Your task to perform on an android device: Add macbook pro 13 inch to the cart on newegg.com Image 0: 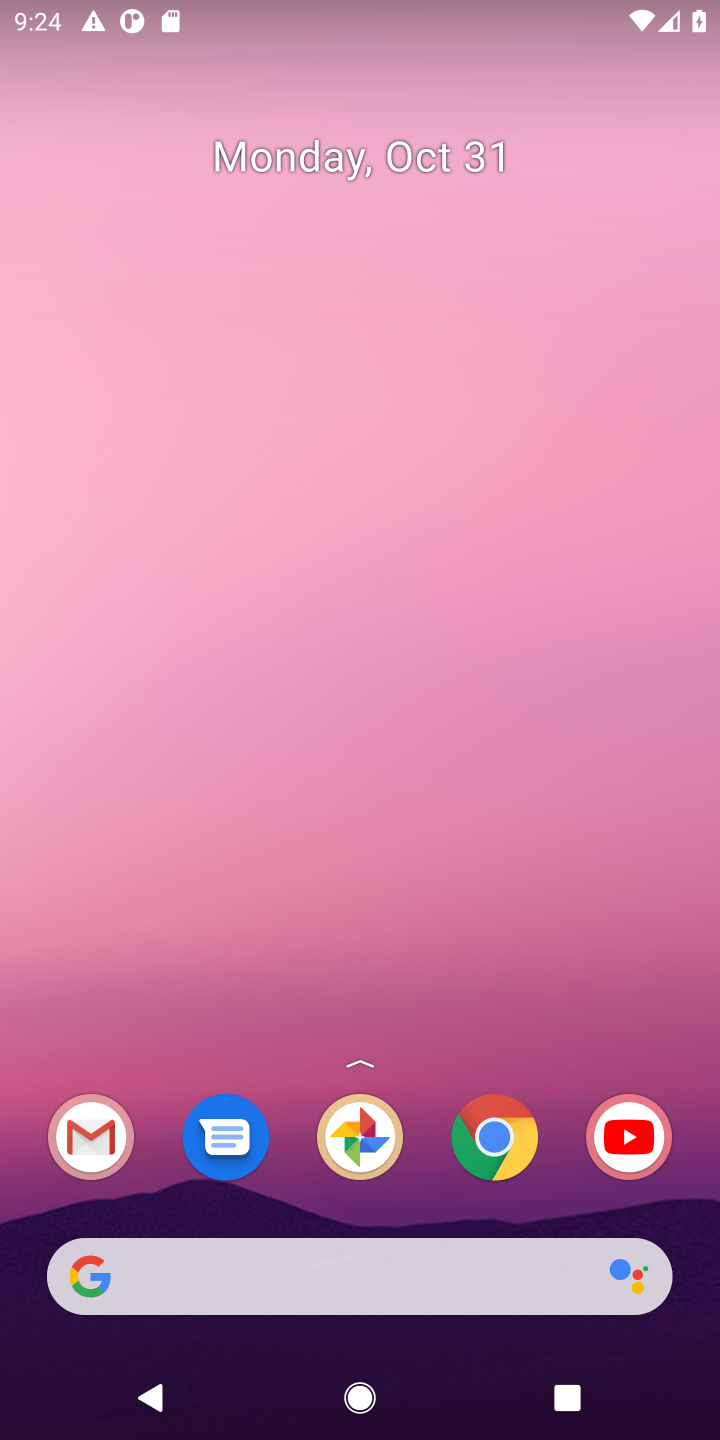
Step 0: click (511, 1165)
Your task to perform on an android device: Add macbook pro 13 inch to the cart on newegg.com Image 1: 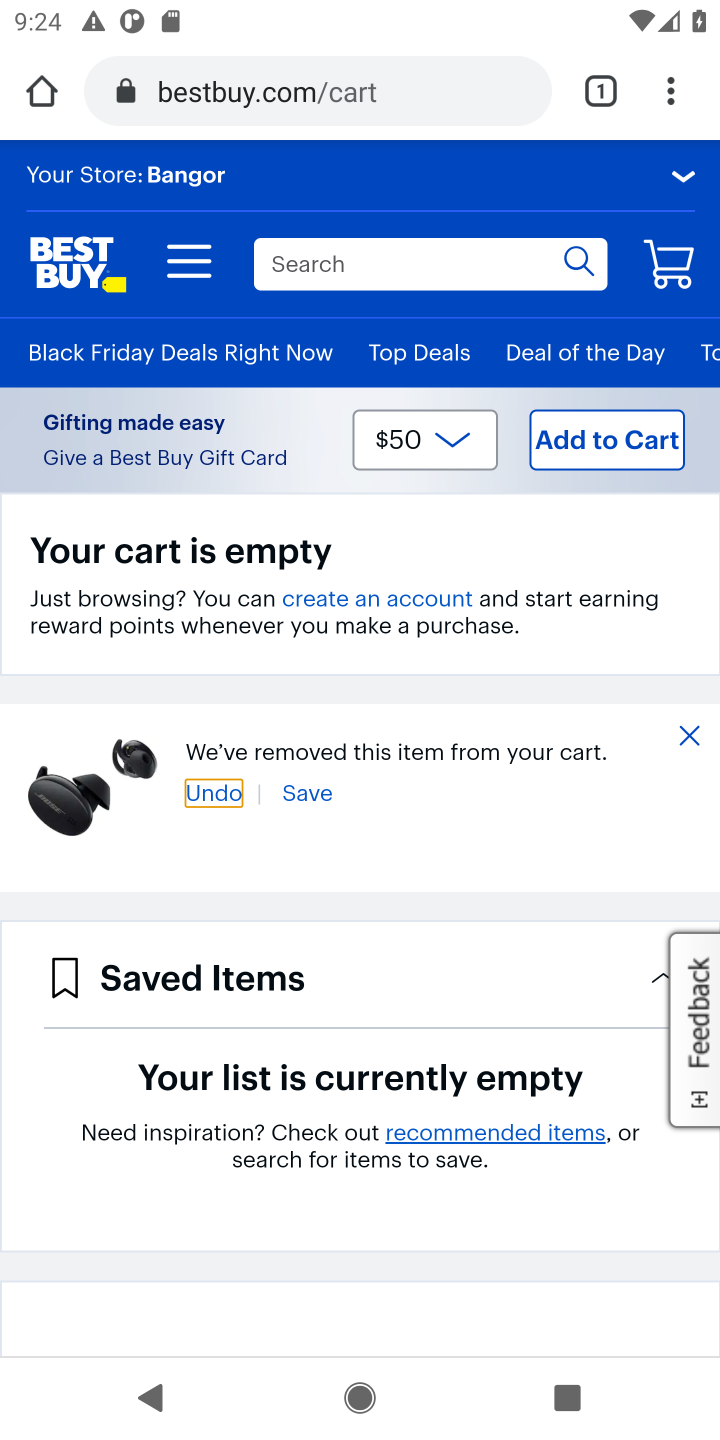
Step 1: click (282, 97)
Your task to perform on an android device: Add macbook pro 13 inch to the cart on newegg.com Image 2: 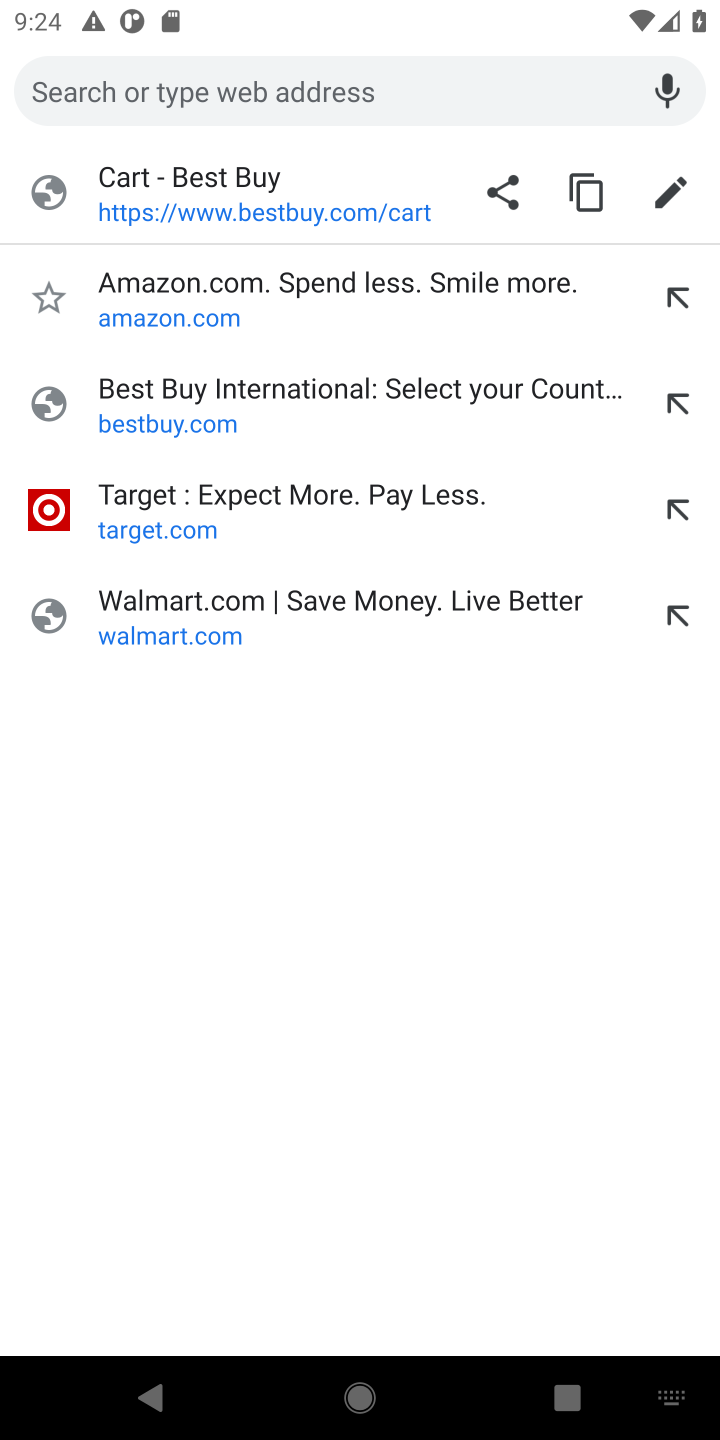
Step 2: type "newegg.com"
Your task to perform on an android device: Add macbook pro 13 inch to the cart on newegg.com Image 3: 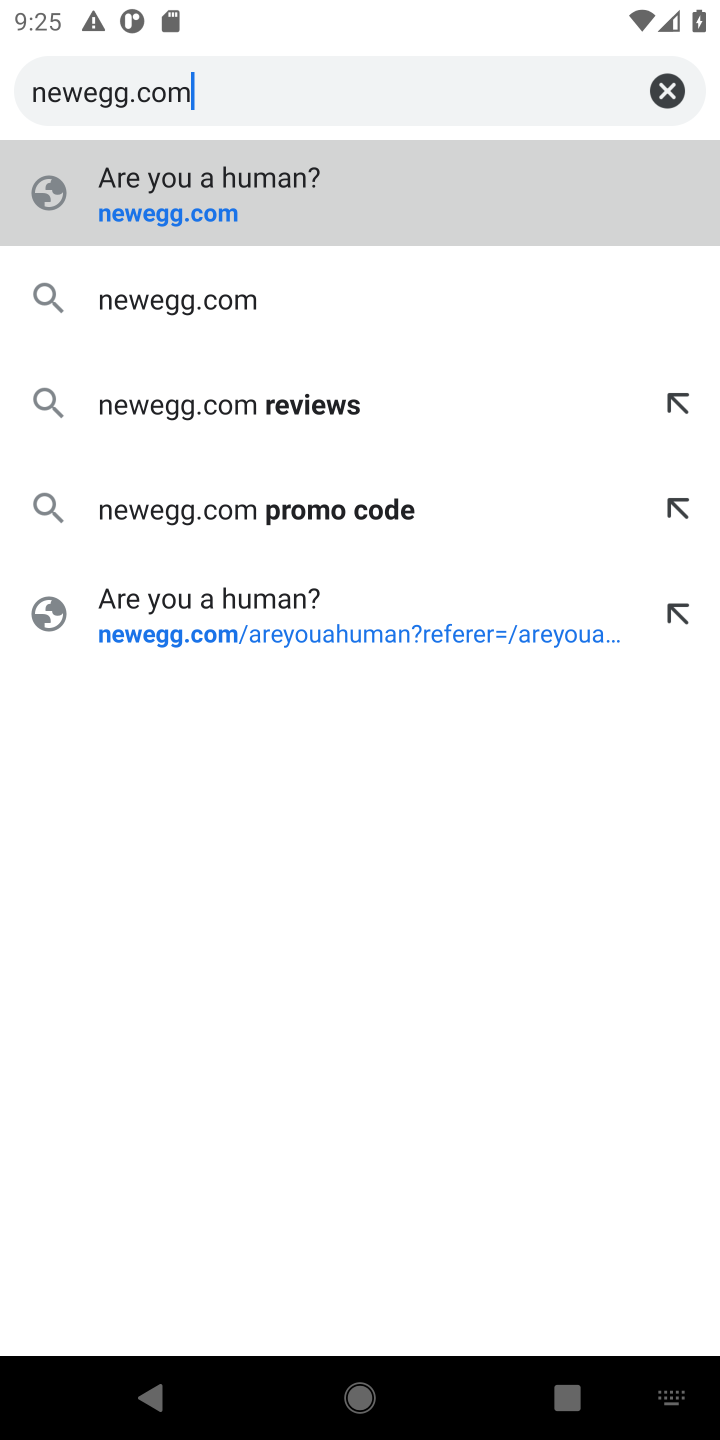
Step 3: click (132, 301)
Your task to perform on an android device: Add macbook pro 13 inch to the cart on newegg.com Image 4: 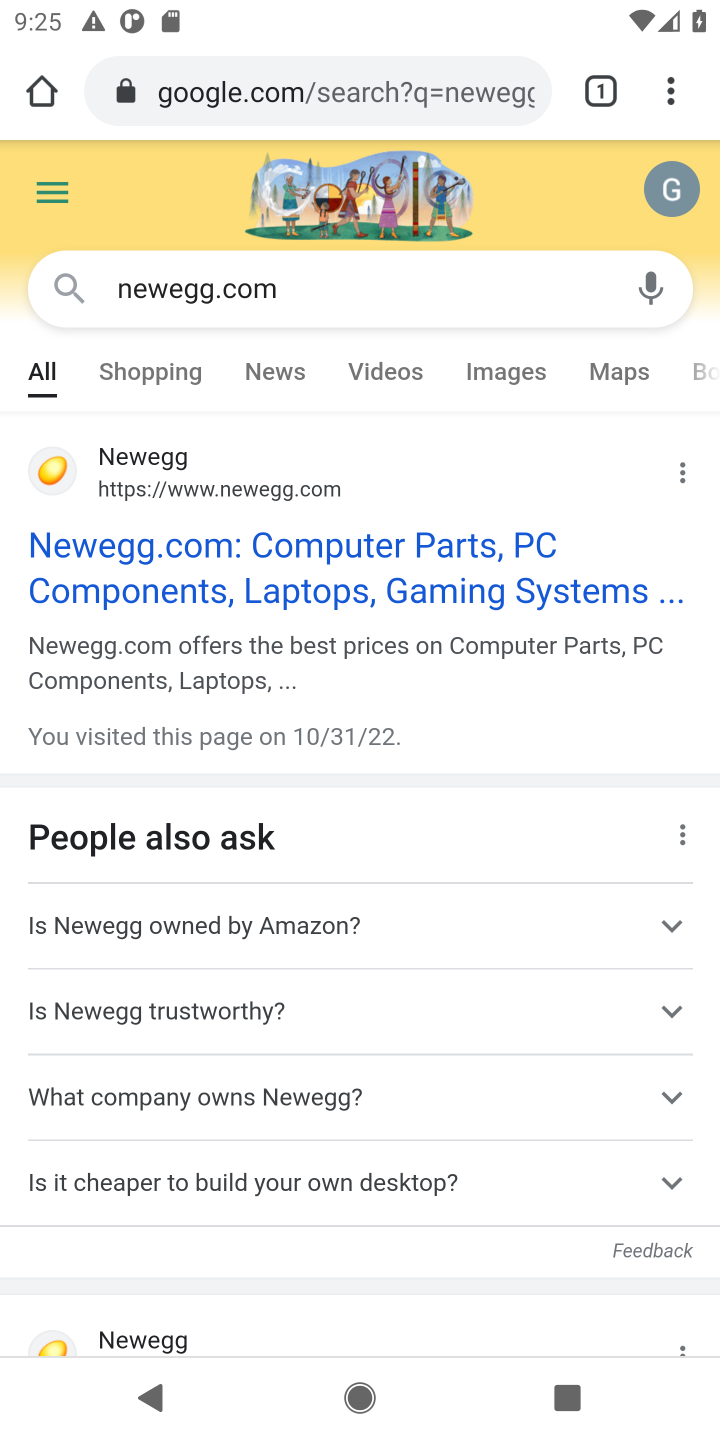
Step 4: click (147, 504)
Your task to perform on an android device: Add macbook pro 13 inch to the cart on newegg.com Image 5: 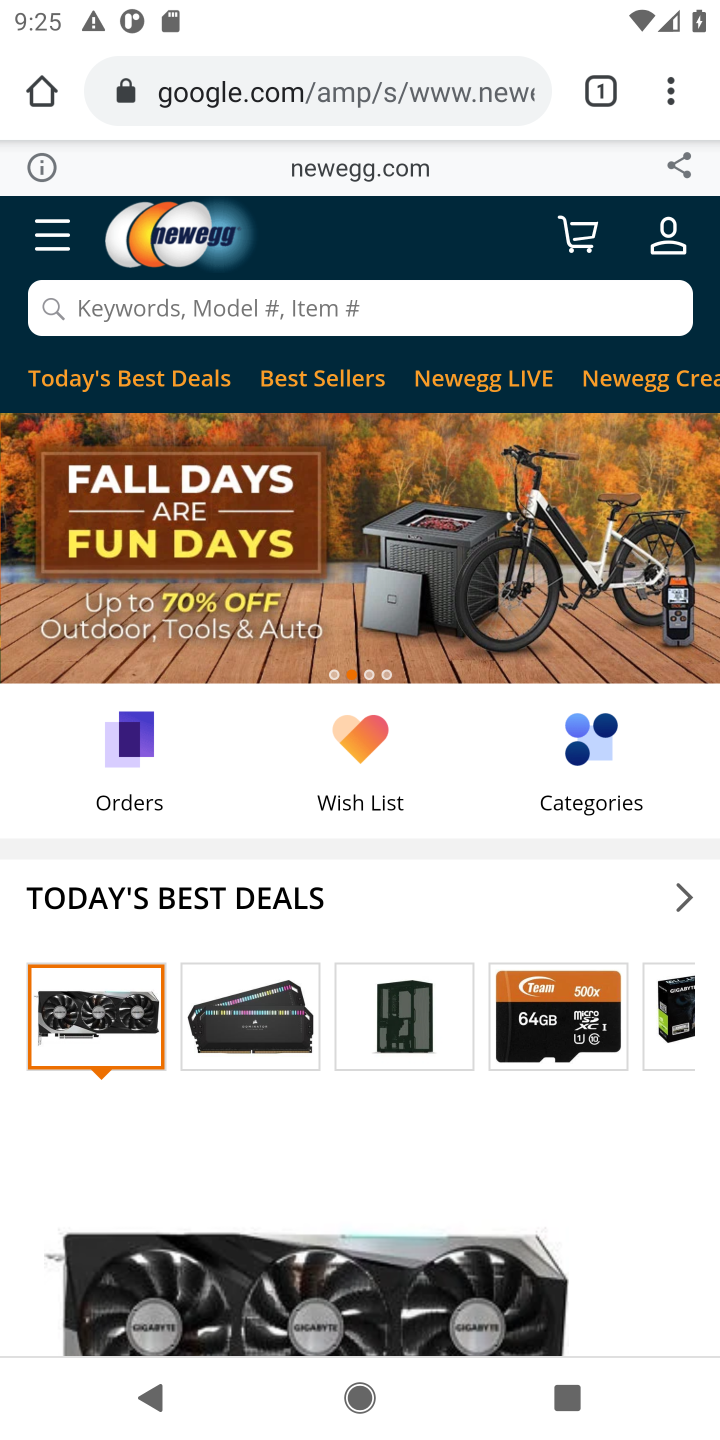
Step 5: click (238, 302)
Your task to perform on an android device: Add macbook pro 13 inch to the cart on newegg.com Image 6: 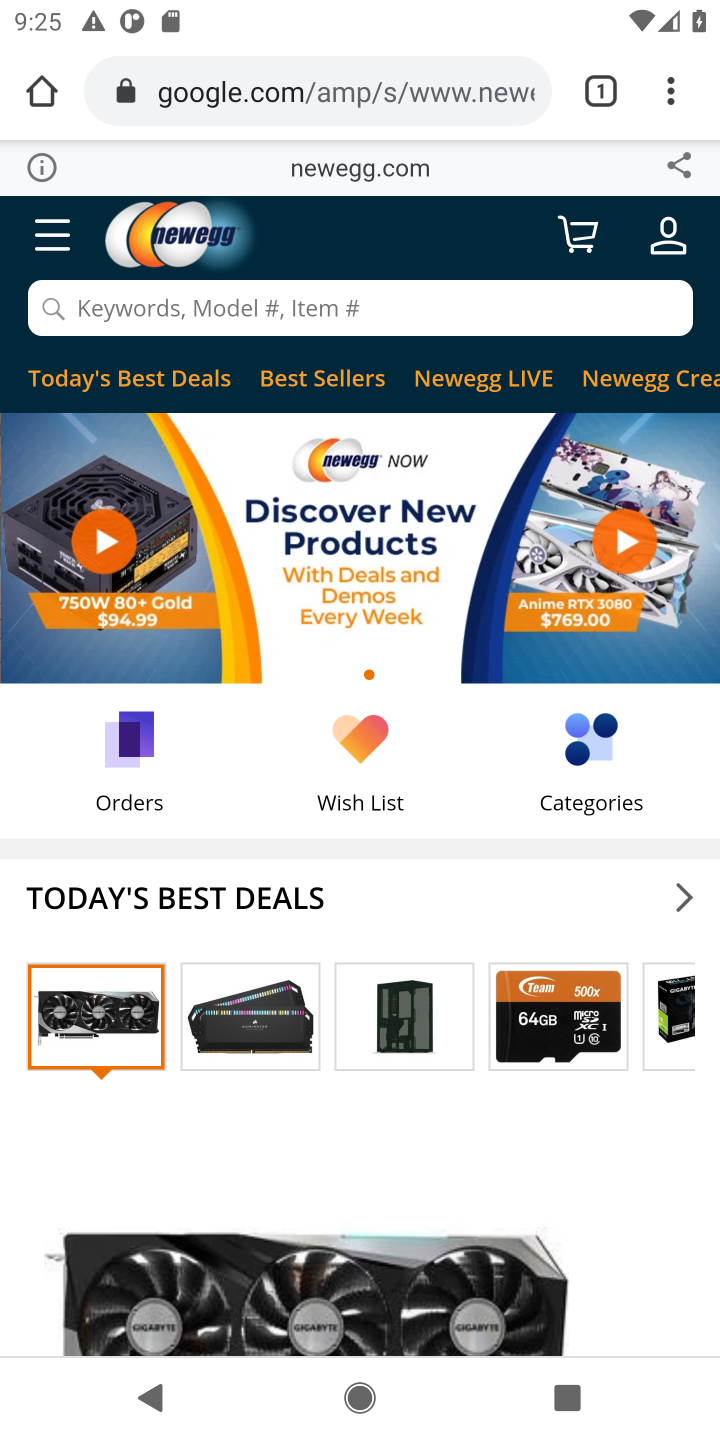
Step 6: click (160, 319)
Your task to perform on an android device: Add macbook pro 13 inch to the cart on newegg.com Image 7: 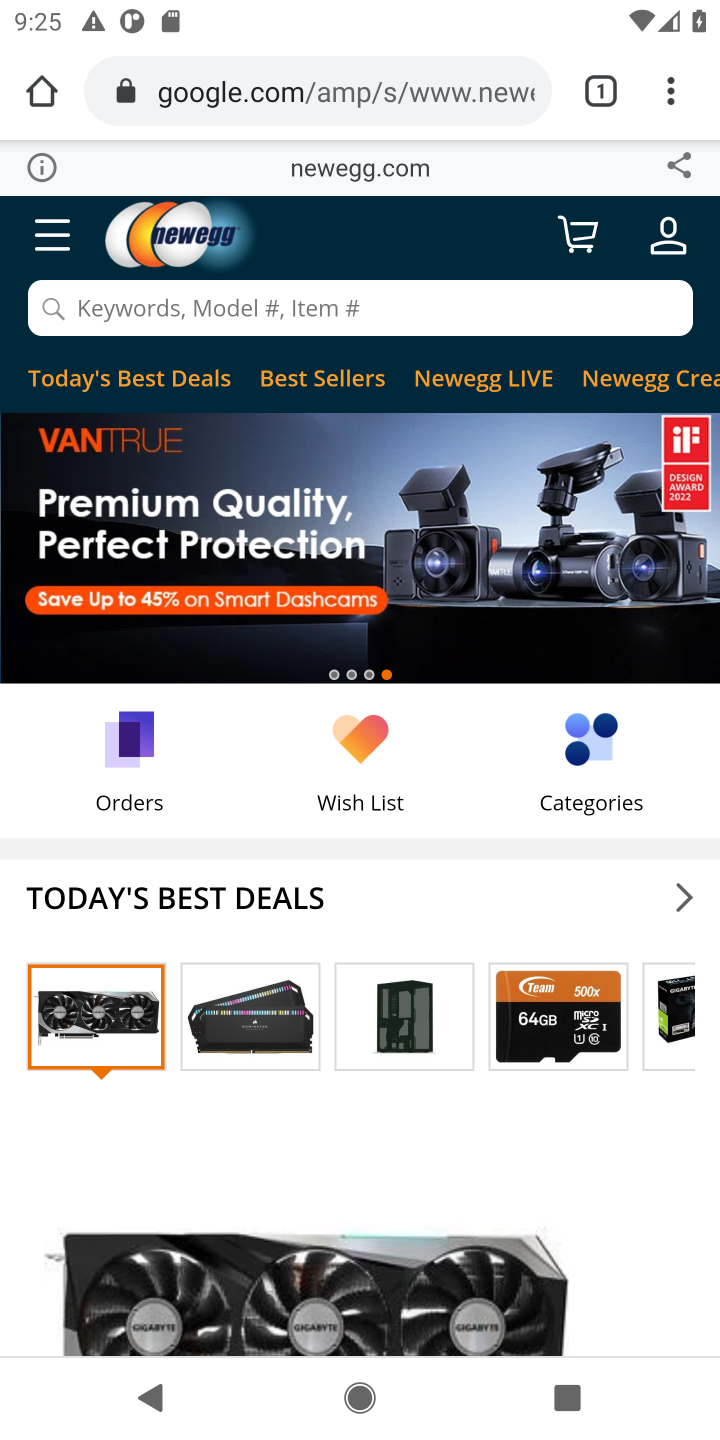
Step 7: click (86, 316)
Your task to perform on an android device: Add macbook pro 13 inch to the cart on newegg.com Image 8: 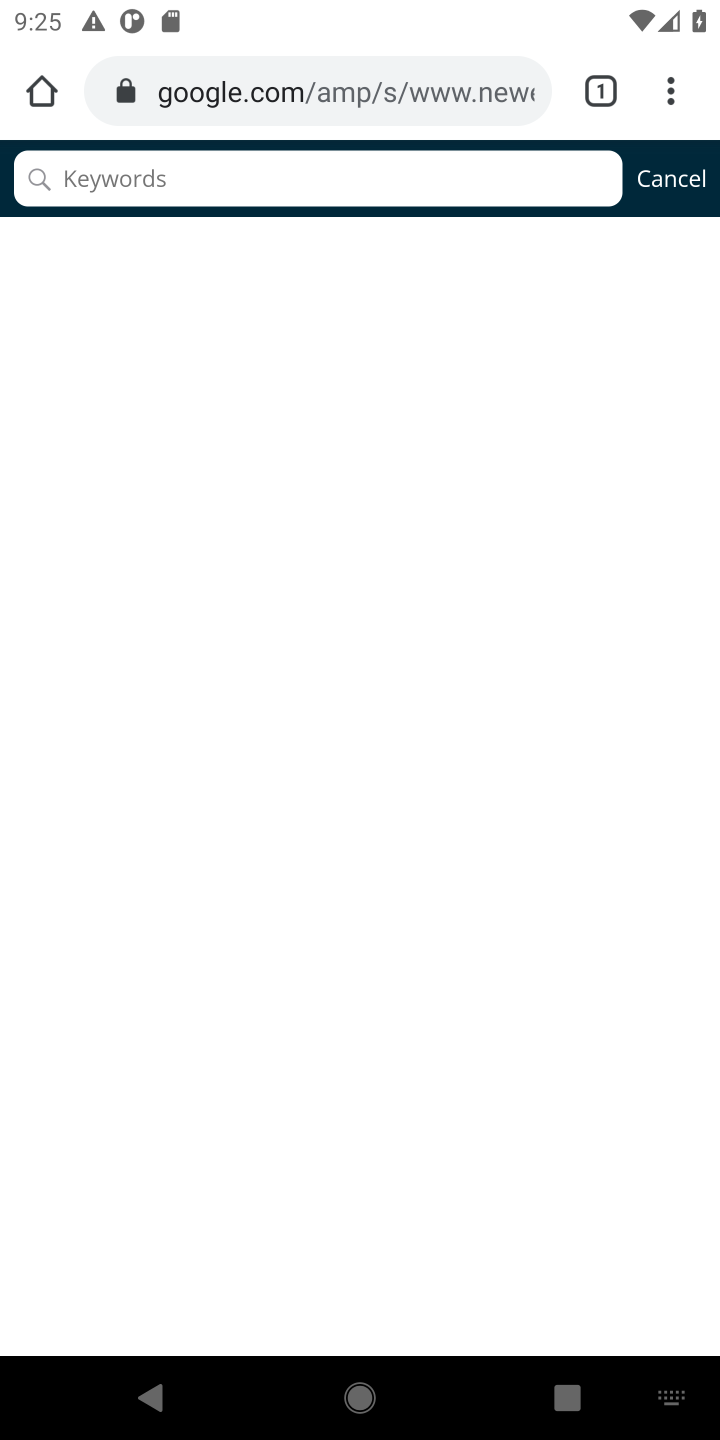
Step 8: type "macbook pro 13 inch"
Your task to perform on an android device: Add macbook pro 13 inch to the cart on newegg.com Image 9: 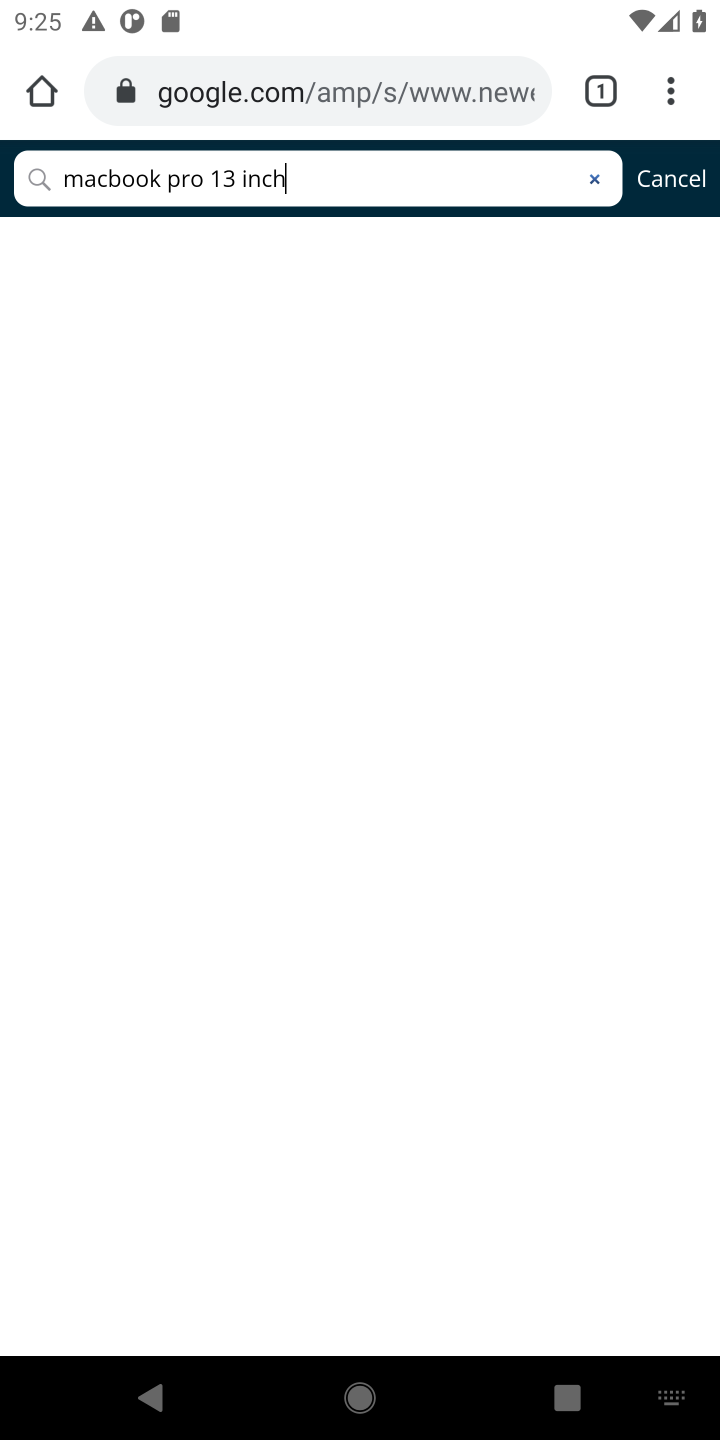
Step 9: click (308, 184)
Your task to perform on an android device: Add macbook pro 13 inch to the cart on newegg.com Image 10: 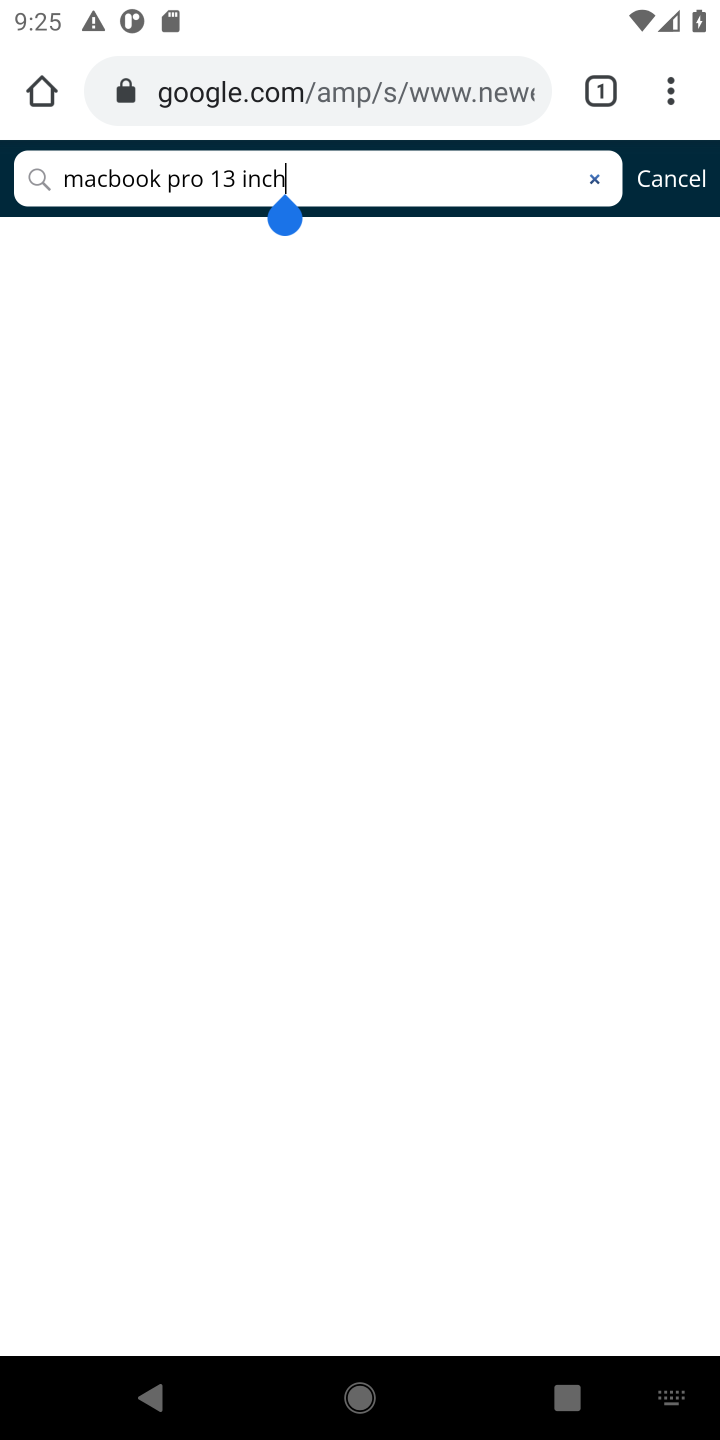
Step 10: click (43, 185)
Your task to perform on an android device: Add macbook pro 13 inch to the cart on newegg.com Image 11: 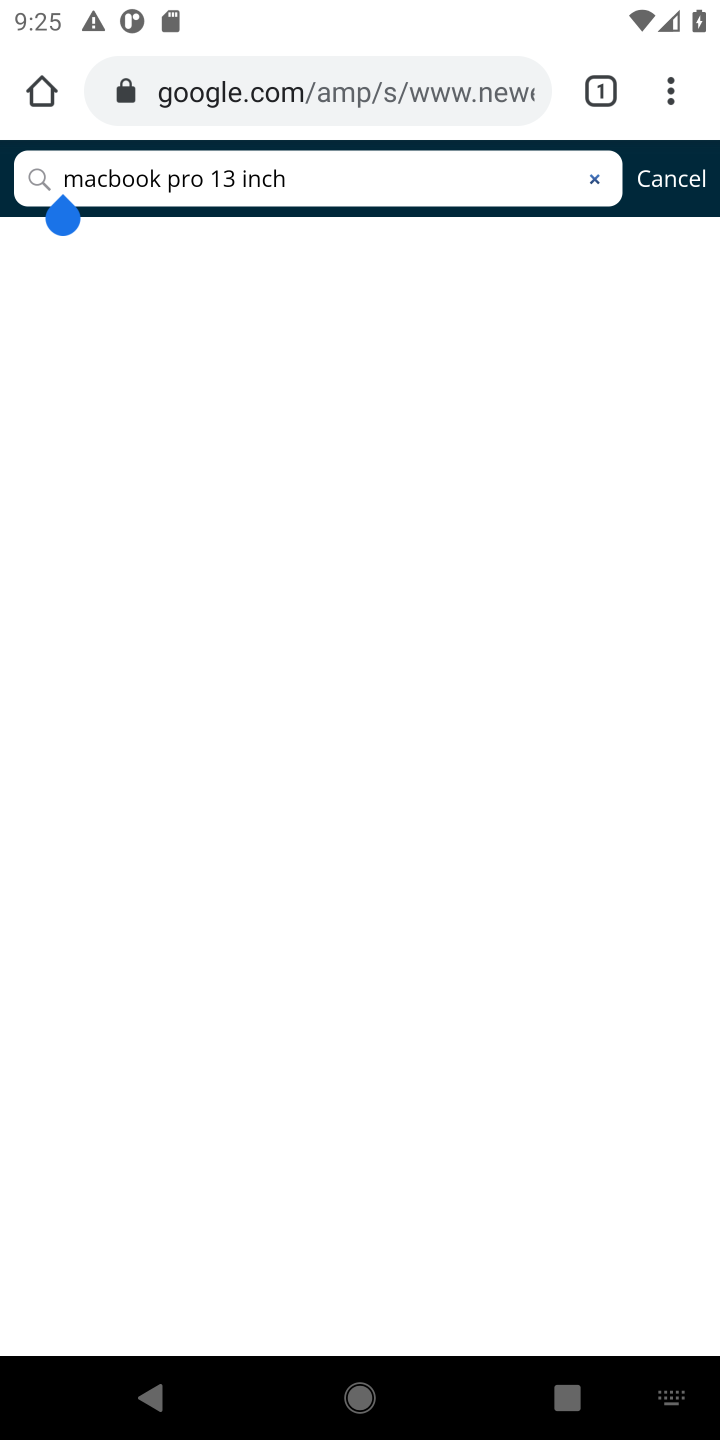
Step 11: click (662, 181)
Your task to perform on an android device: Add macbook pro 13 inch to the cart on newegg.com Image 12: 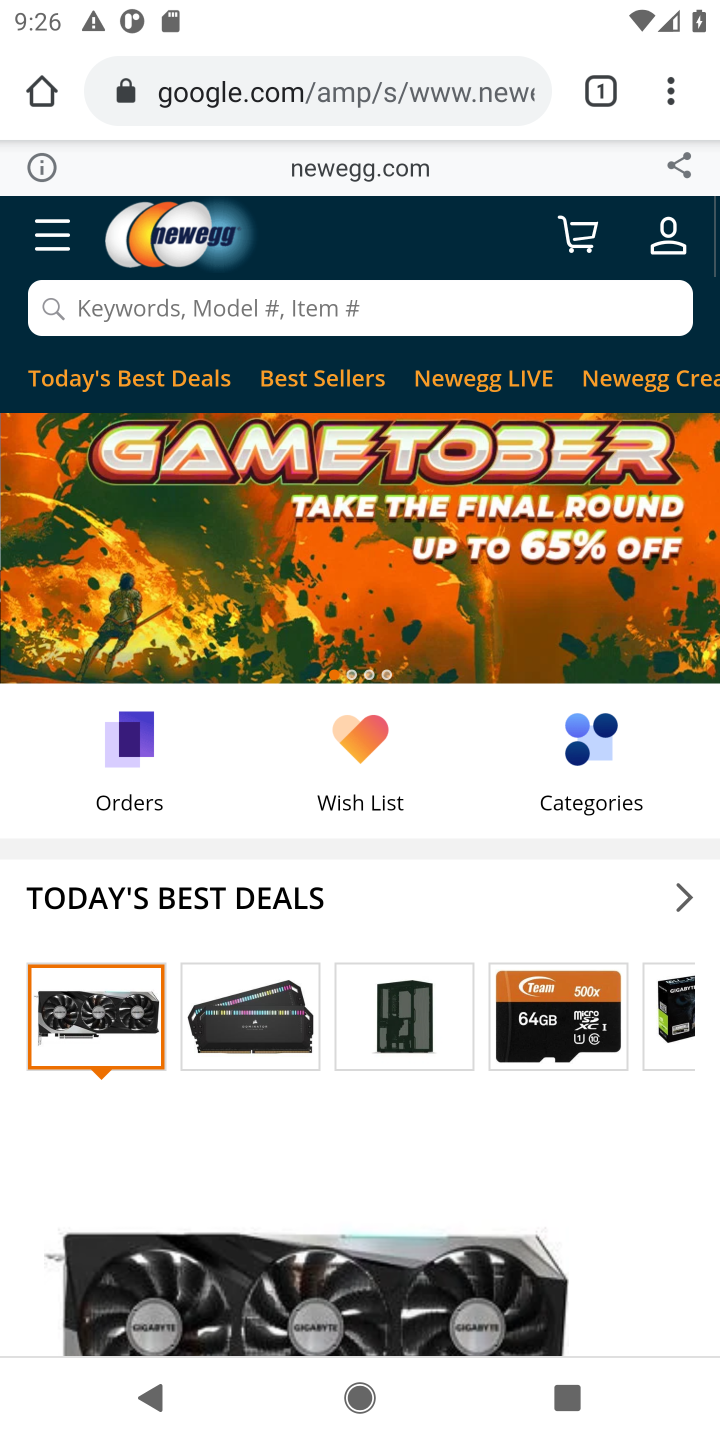
Step 12: click (139, 310)
Your task to perform on an android device: Add macbook pro 13 inch to the cart on newegg.com Image 13: 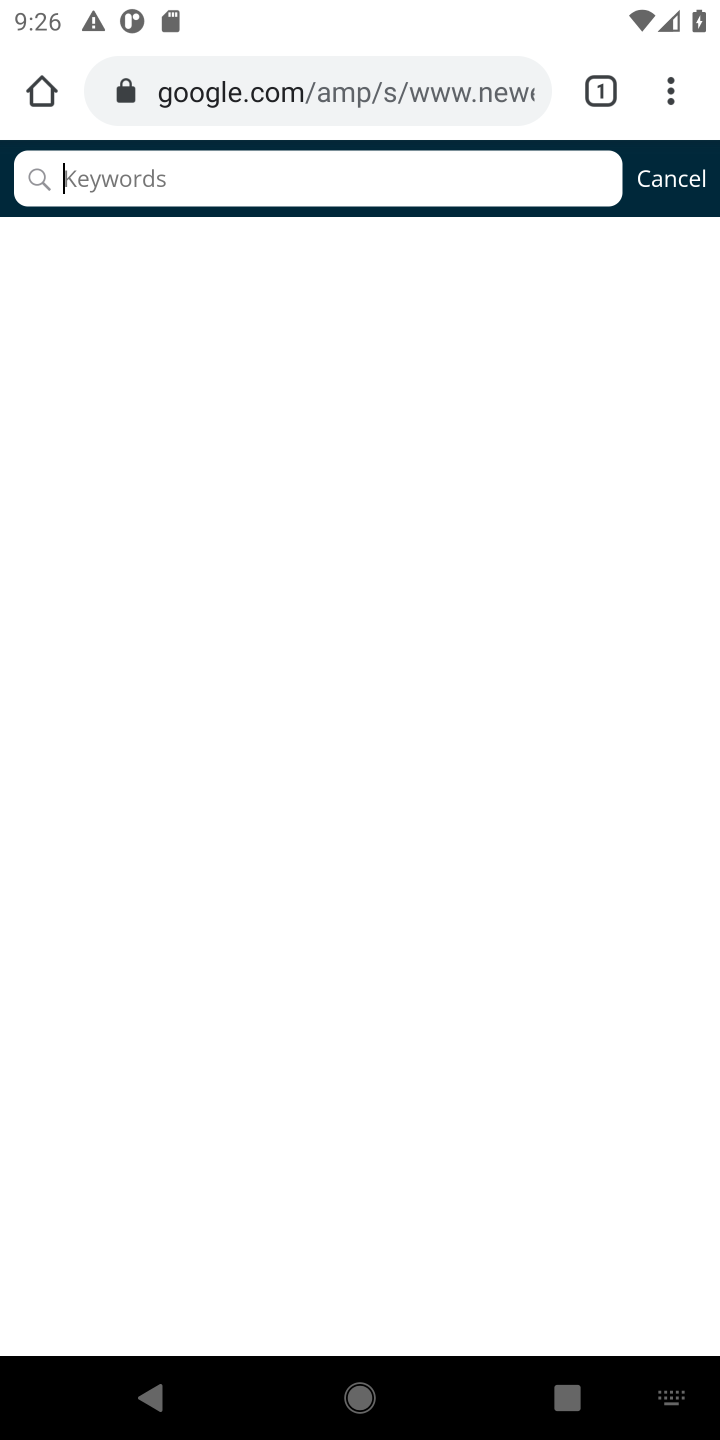
Step 13: type "macbook pro 13 inch"
Your task to perform on an android device: Add macbook pro 13 inch to the cart on newegg.com Image 14: 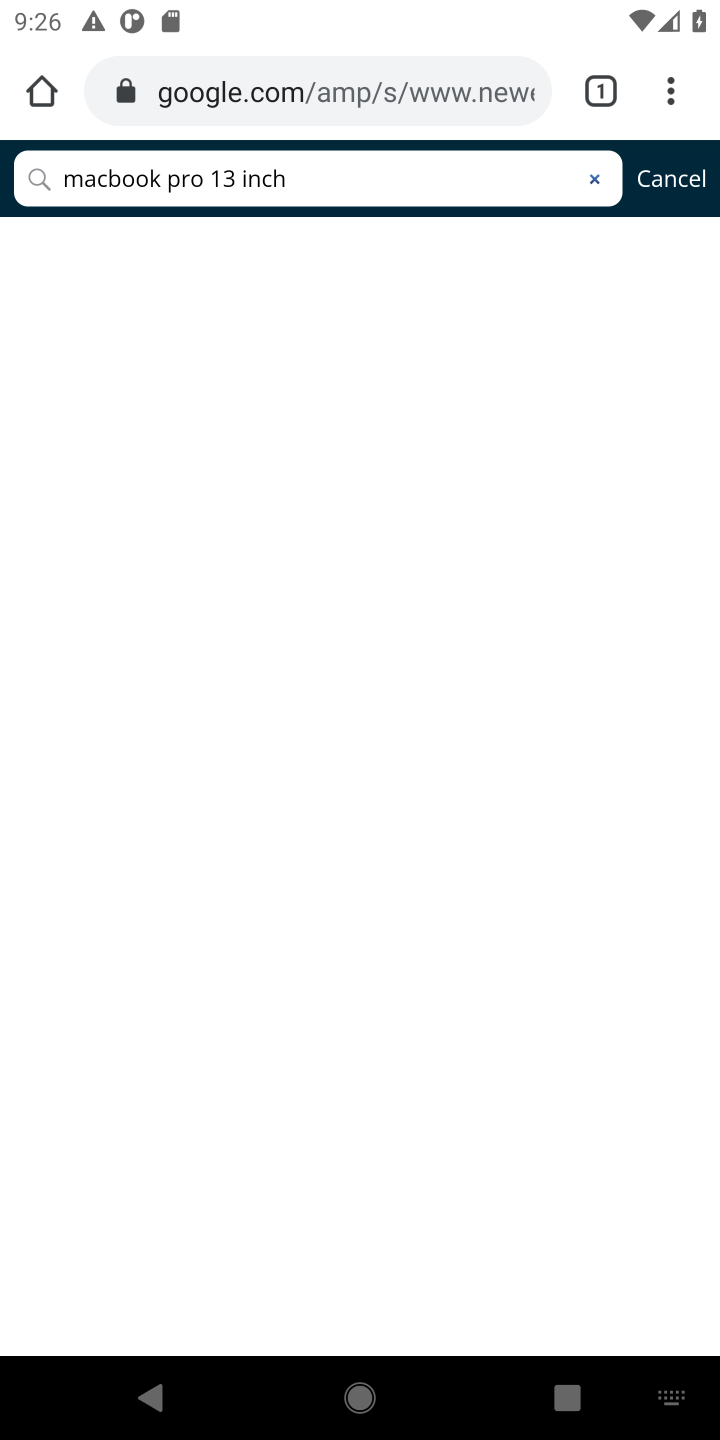
Step 14: click (35, 181)
Your task to perform on an android device: Add macbook pro 13 inch to the cart on newegg.com Image 15: 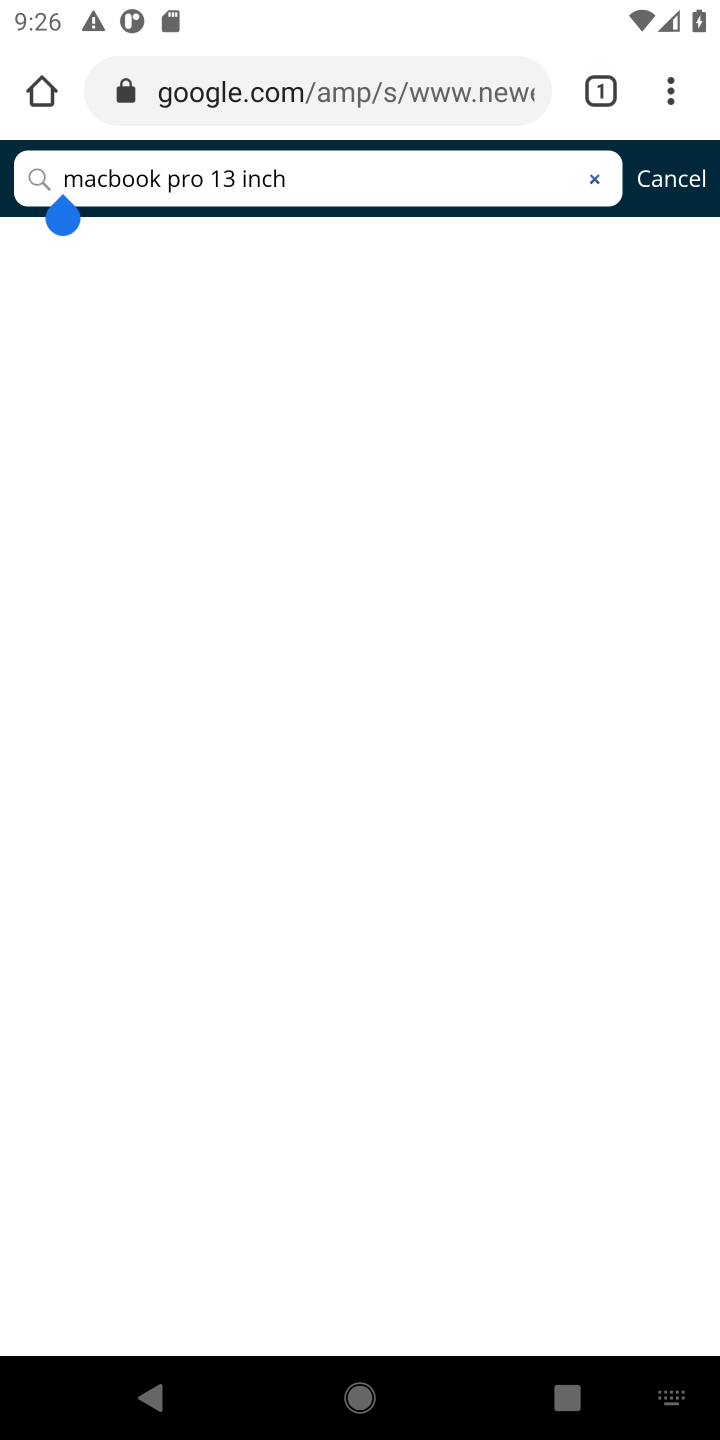
Step 15: task complete